Your task to perform on an android device: Open Chrome and go to settings Image 0: 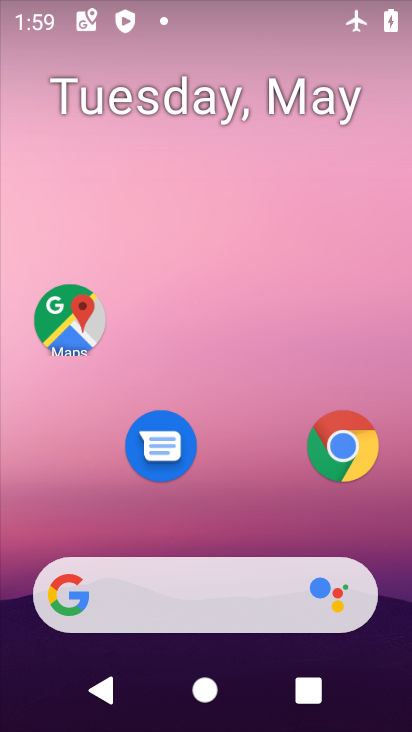
Step 0: click (367, 456)
Your task to perform on an android device: Open Chrome and go to settings Image 1: 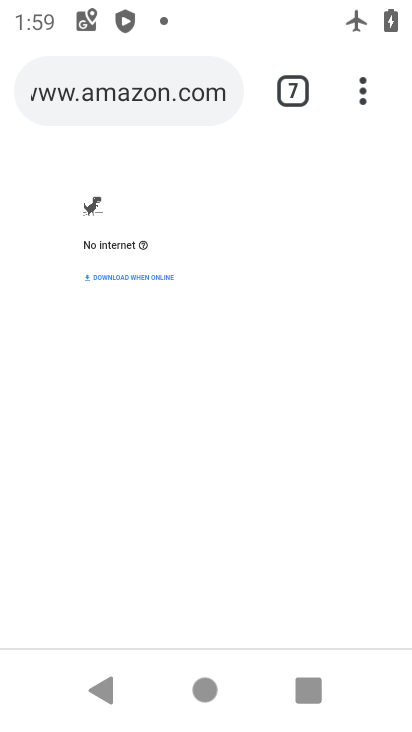
Step 1: click (372, 90)
Your task to perform on an android device: Open Chrome and go to settings Image 2: 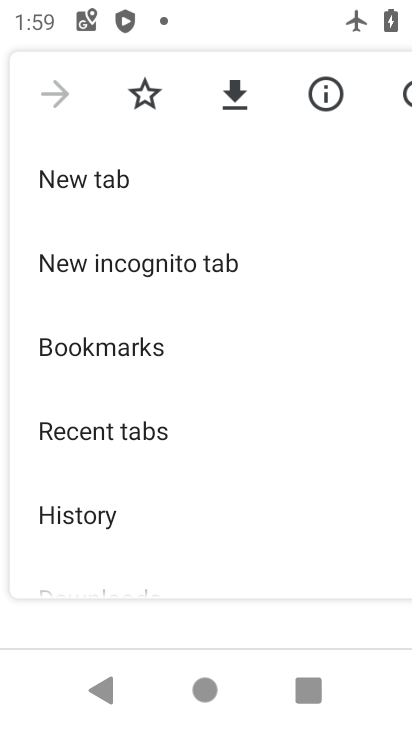
Step 2: drag from (225, 495) to (178, 158)
Your task to perform on an android device: Open Chrome and go to settings Image 3: 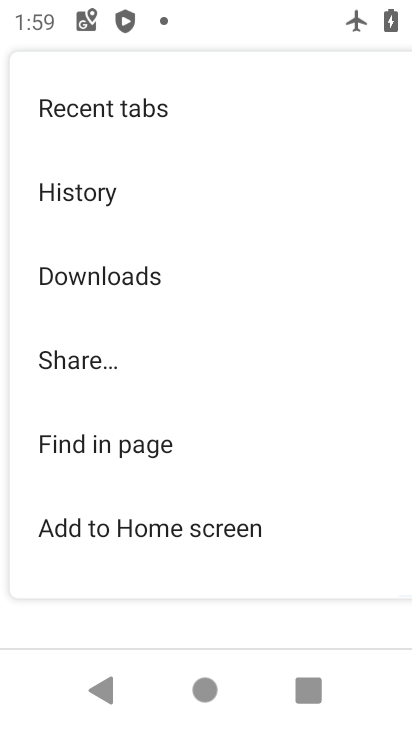
Step 3: drag from (136, 540) to (97, 151)
Your task to perform on an android device: Open Chrome and go to settings Image 4: 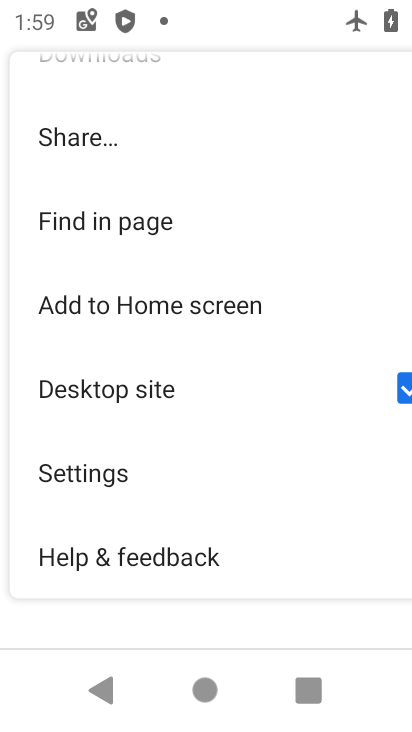
Step 4: click (78, 484)
Your task to perform on an android device: Open Chrome and go to settings Image 5: 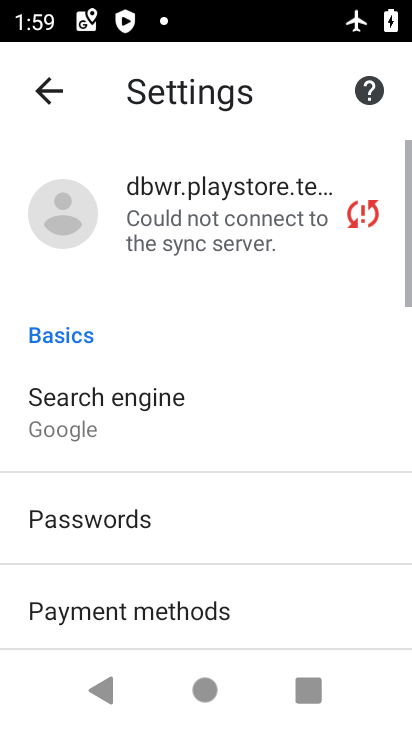
Step 5: task complete